Your task to perform on an android device: check battery use Image 0: 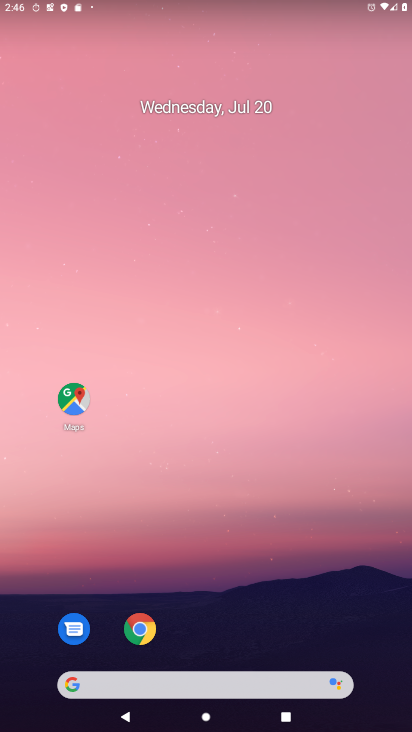
Step 0: press home button
Your task to perform on an android device: check battery use Image 1: 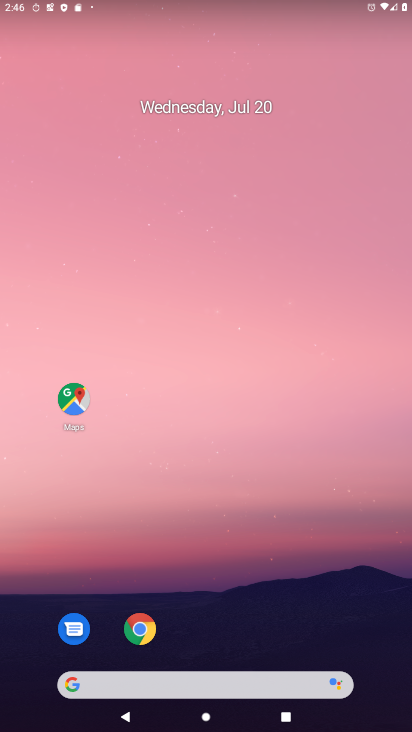
Step 1: drag from (219, 655) to (226, 52)
Your task to perform on an android device: check battery use Image 2: 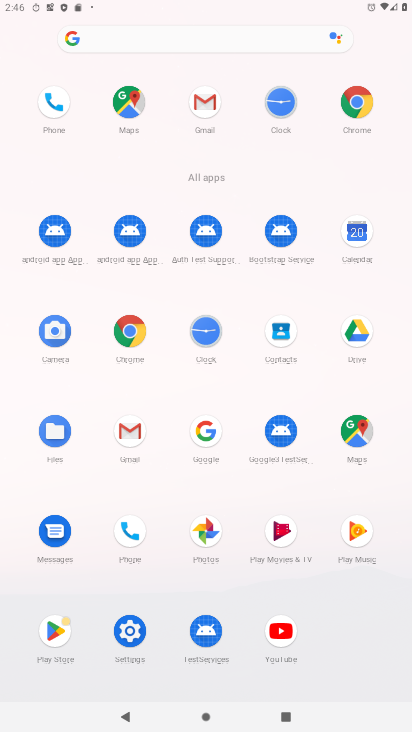
Step 2: click (122, 632)
Your task to perform on an android device: check battery use Image 3: 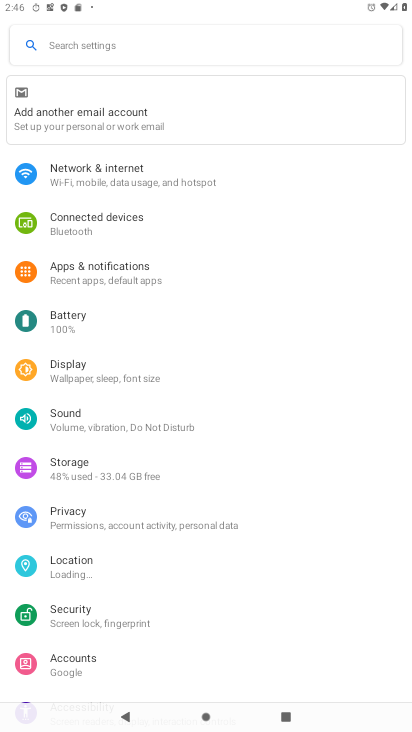
Step 3: click (100, 317)
Your task to perform on an android device: check battery use Image 4: 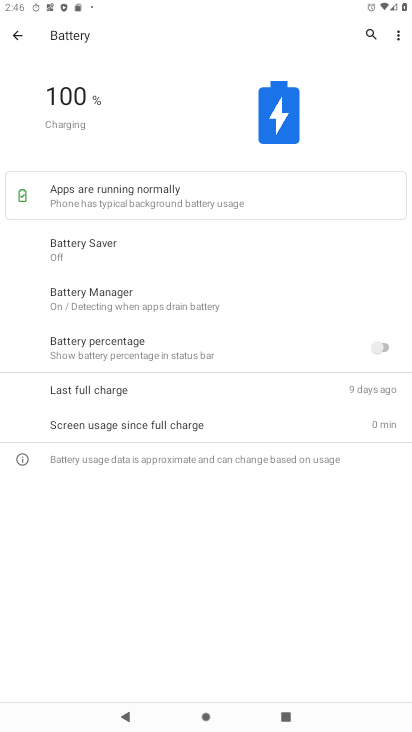
Step 4: click (396, 37)
Your task to perform on an android device: check battery use Image 5: 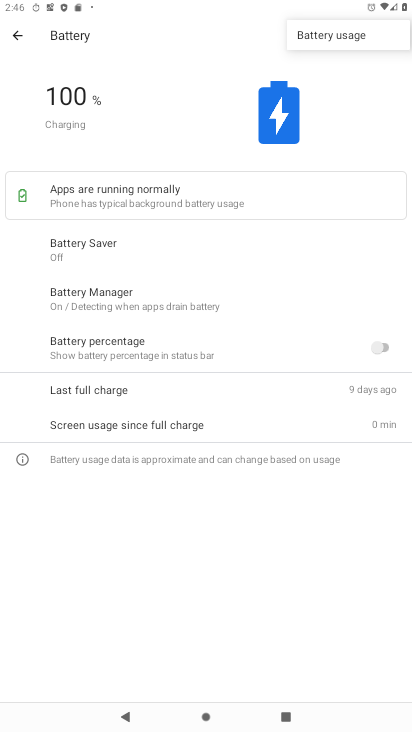
Step 5: click (307, 37)
Your task to perform on an android device: check battery use Image 6: 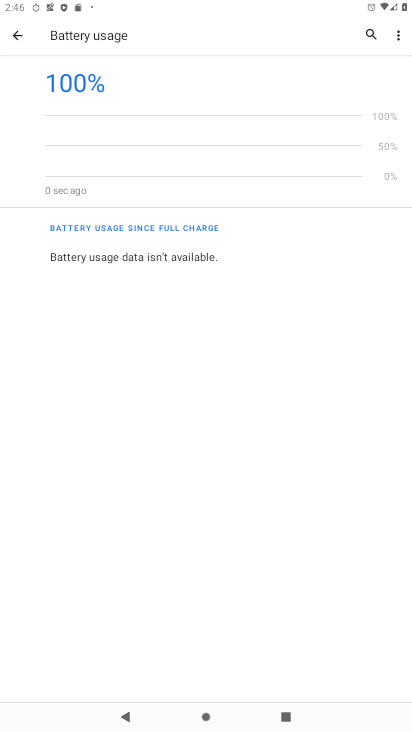
Step 6: task complete